Your task to perform on an android device: turn on showing notifications on the lock screen Image 0: 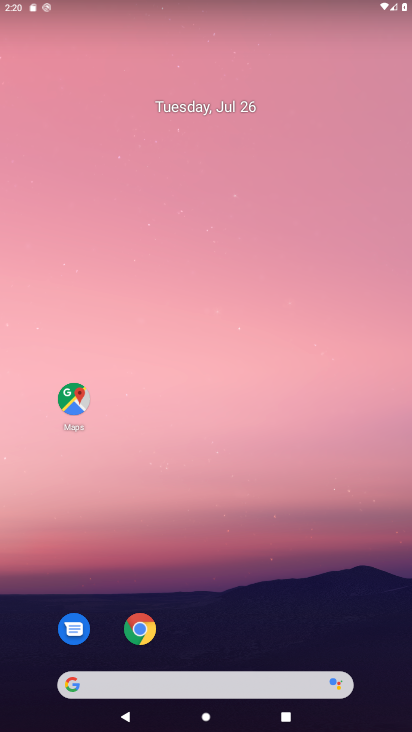
Step 0: drag from (207, 674) to (249, 197)
Your task to perform on an android device: turn on showing notifications on the lock screen Image 1: 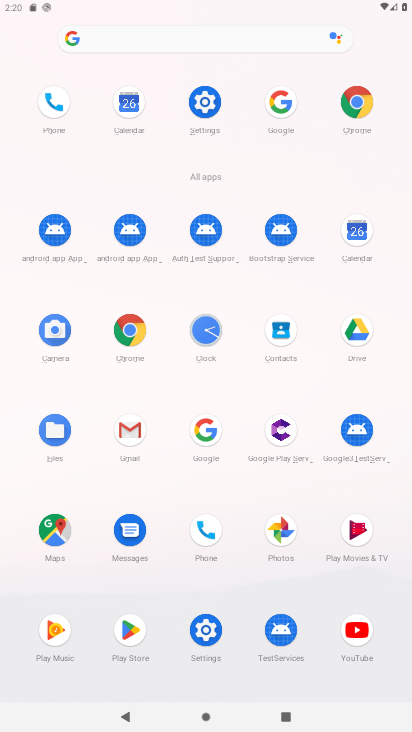
Step 1: click (205, 637)
Your task to perform on an android device: turn on showing notifications on the lock screen Image 2: 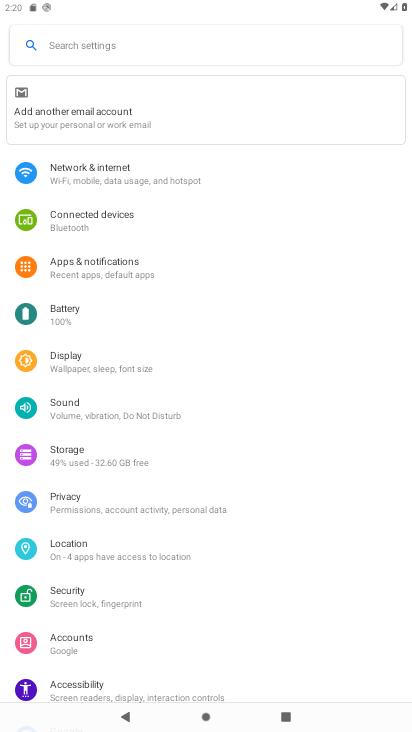
Step 2: click (86, 267)
Your task to perform on an android device: turn on showing notifications on the lock screen Image 3: 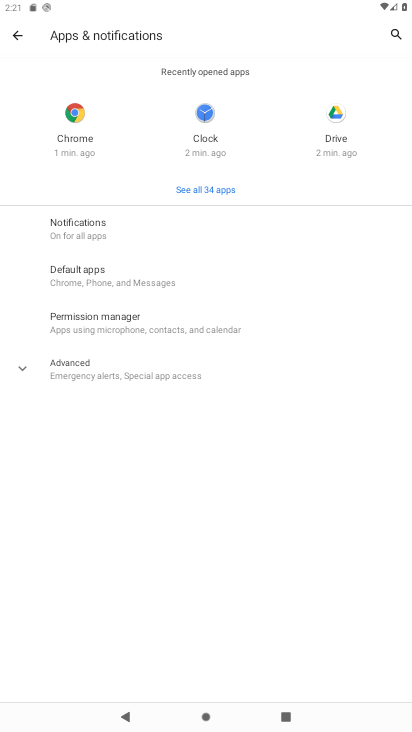
Step 3: click (117, 227)
Your task to perform on an android device: turn on showing notifications on the lock screen Image 4: 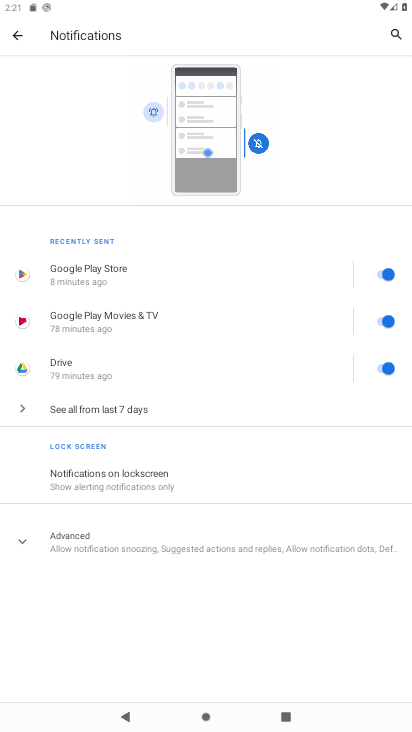
Step 4: click (185, 471)
Your task to perform on an android device: turn on showing notifications on the lock screen Image 5: 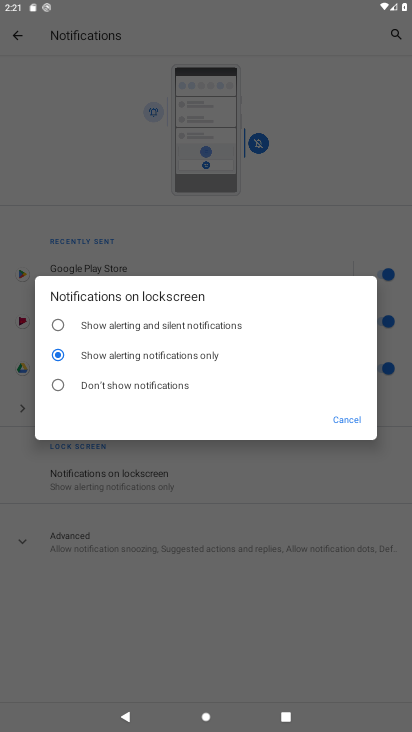
Step 5: click (106, 322)
Your task to perform on an android device: turn on showing notifications on the lock screen Image 6: 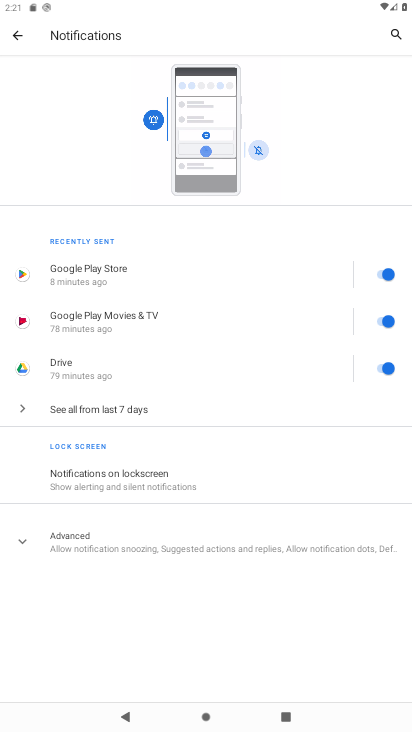
Step 6: click (272, 500)
Your task to perform on an android device: turn on showing notifications on the lock screen Image 7: 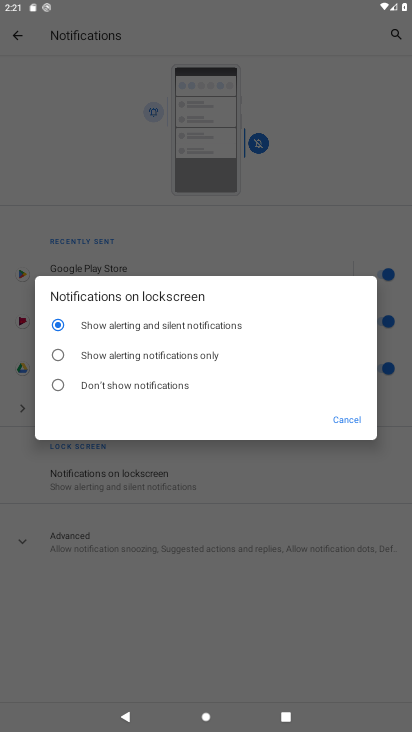
Step 7: task complete